Your task to perform on an android device: Go to settings Image 0: 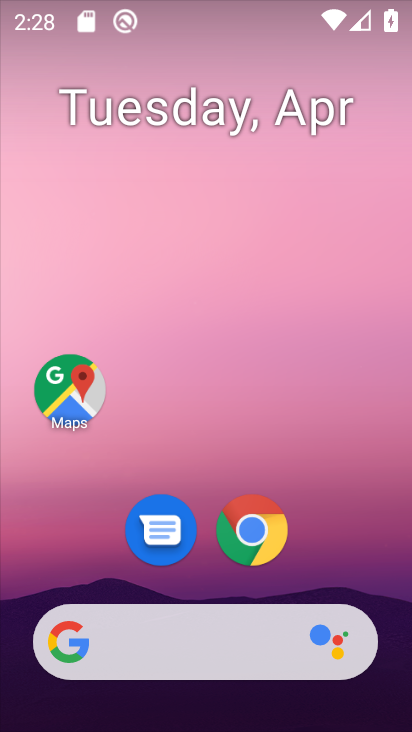
Step 0: drag from (197, 722) to (195, 53)
Your task to perform on an android device: Go to settings Image 1: 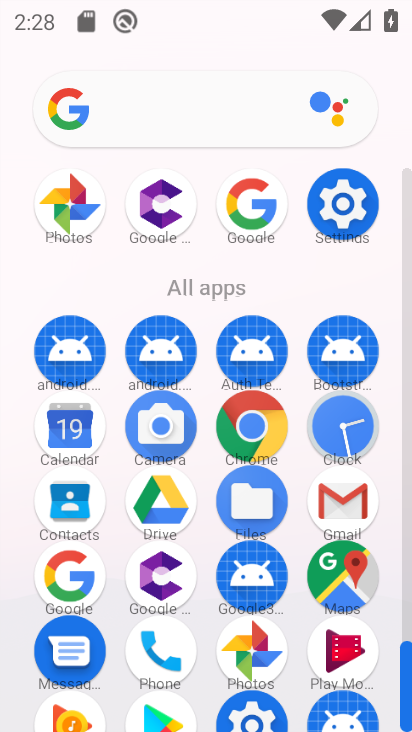
Step 1: click (344, 201)
Your task to perform on an android device: Go to settings Image 2: 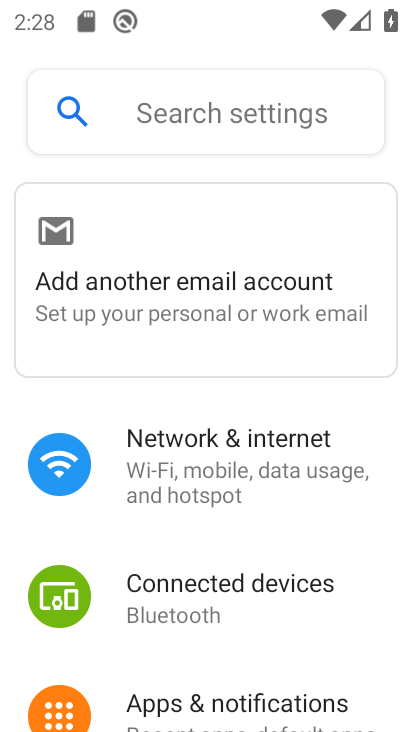
Step 2: task complete